Your task to perform on an android device: star an email in the gmail app Image 0: 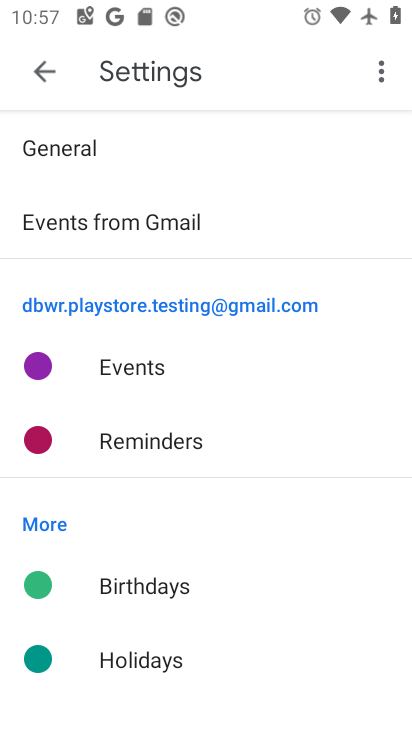
Step 0: press home button
Your task to perform on an android device: star an email in the gmail app Image 1: 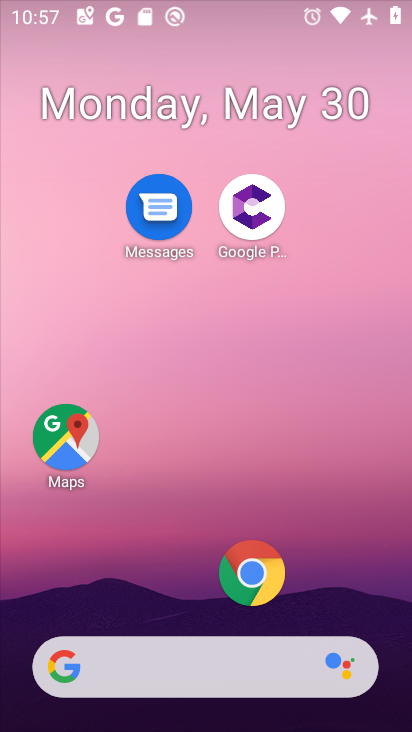
Step 1: drag from (231, 656) to (198, 195)
Your task to perform on an android device: star an email in the gmail app Image 2: 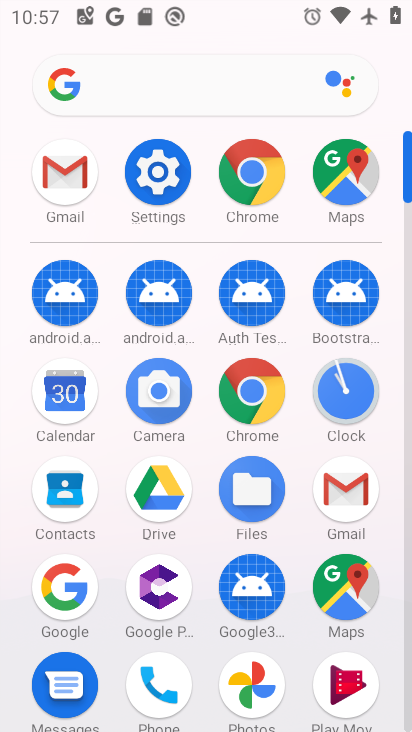
Step 2: click (352, 502)
Your task to perform on an android device: star an email in the gmail app Image 3: 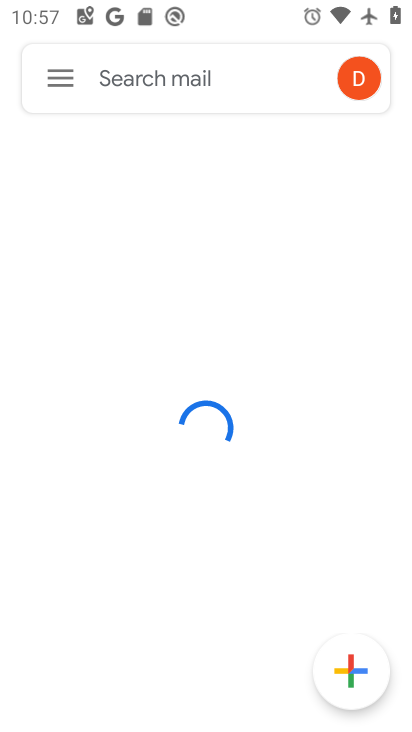
Step 3: click (66, 83)
Your task to perform on an android device: star an email in the gmail app Image 4: 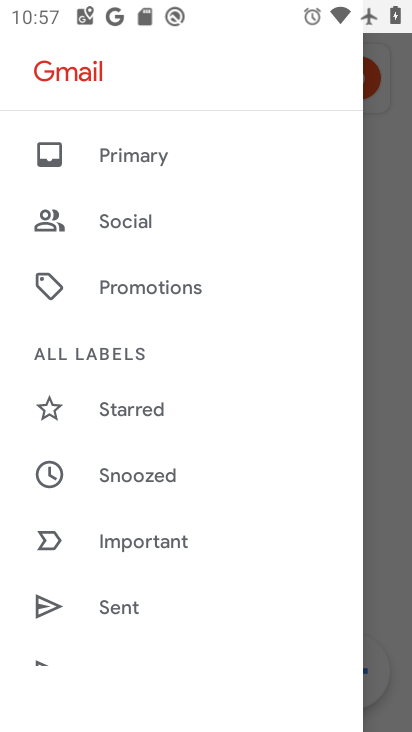
Step 4: drag from (159, 277) to (119, 463)
Your task to perform on an android device: star an email in the gmail app Image 5: 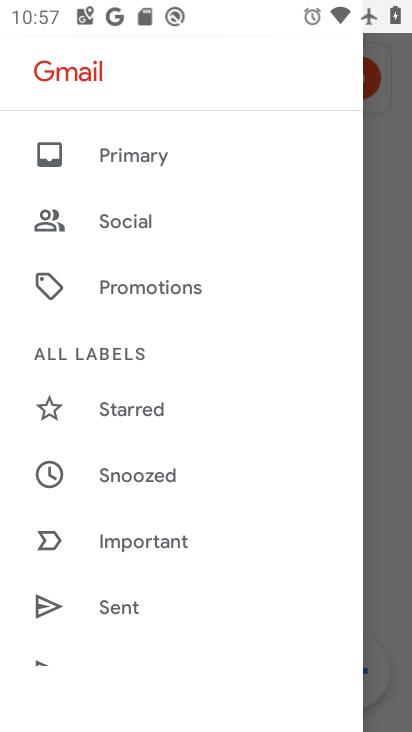
Step 5: drag from (118, 464) to (124, 379)
Your task to perform on an android device: star an email in the gmail app Image 6: 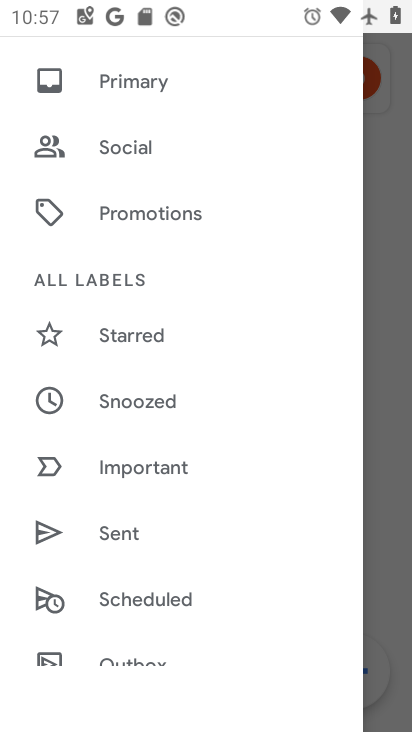
Step 6: drag from (150, 582) to (145, 255)
Your task to perform on an android device: star an email in the gmail app Image 7: 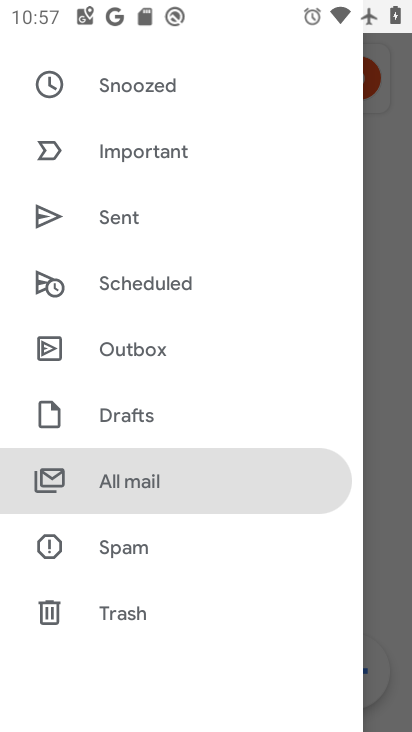
Step 7: click (173, 493)
Your task to perform on an android device: star an email in the gmail app Image 8: 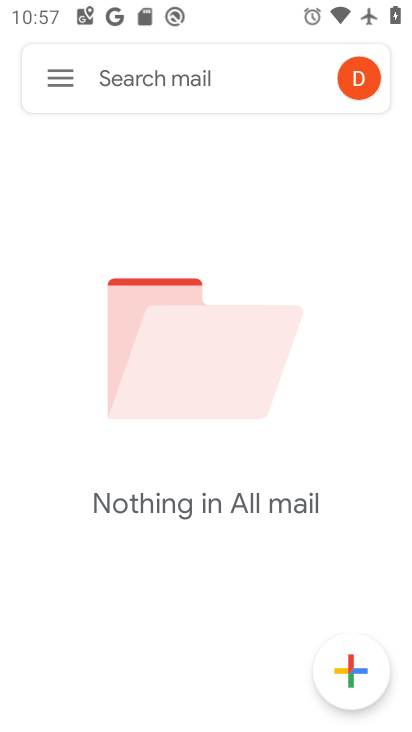
Step 8: task complete